Your task to perform on an android device: show emergency info Image 0: 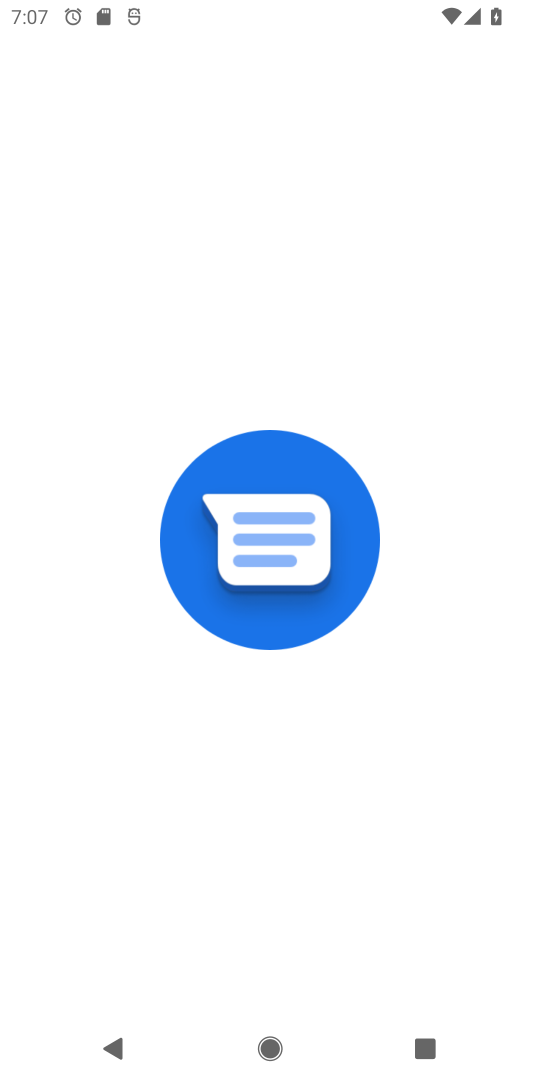
Step 0: press home button
Your task to perform on an android device: show emergency info Image 1: 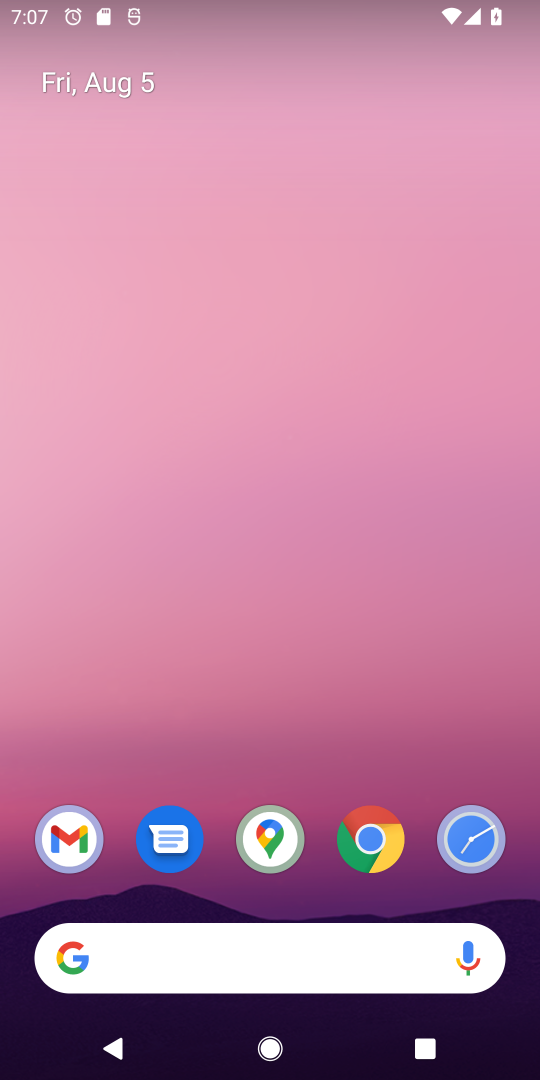
Step 1: drag from (224, 772) to (208, 165)
Your task to perform on an android device: show emergency info Image 2: 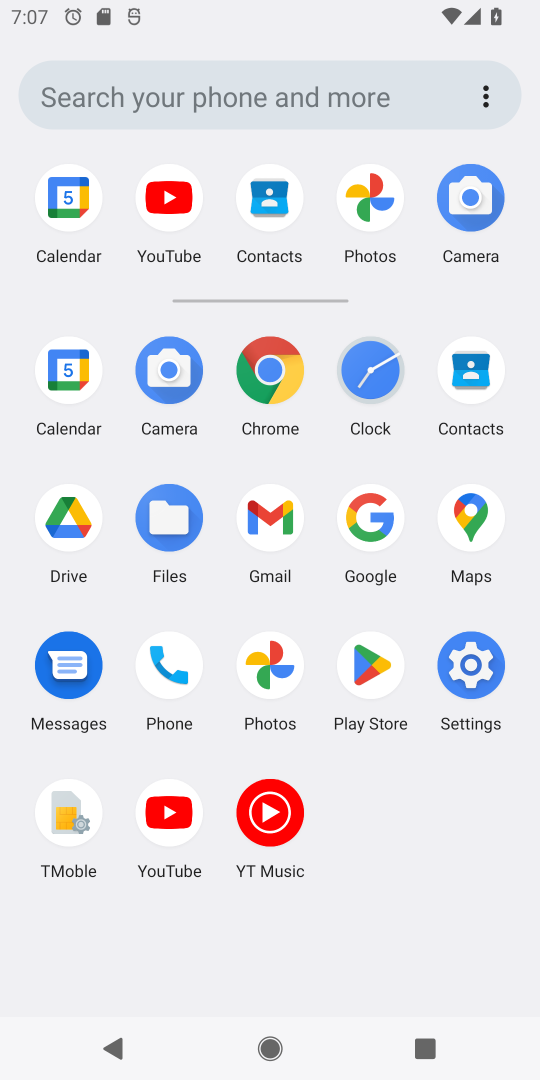
Step 2: click (467, 664)
Your task to perform on an android device: show emergency info Image 3: 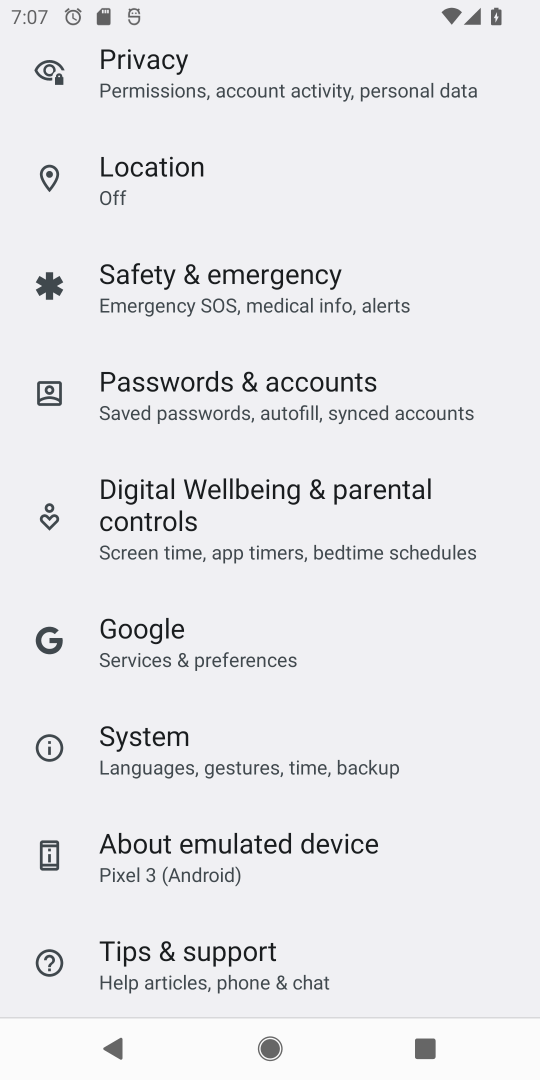
Step 3: drag from (261, 832) to (268, 270)
Your task to perform on an android device: show emergency info Image 4: 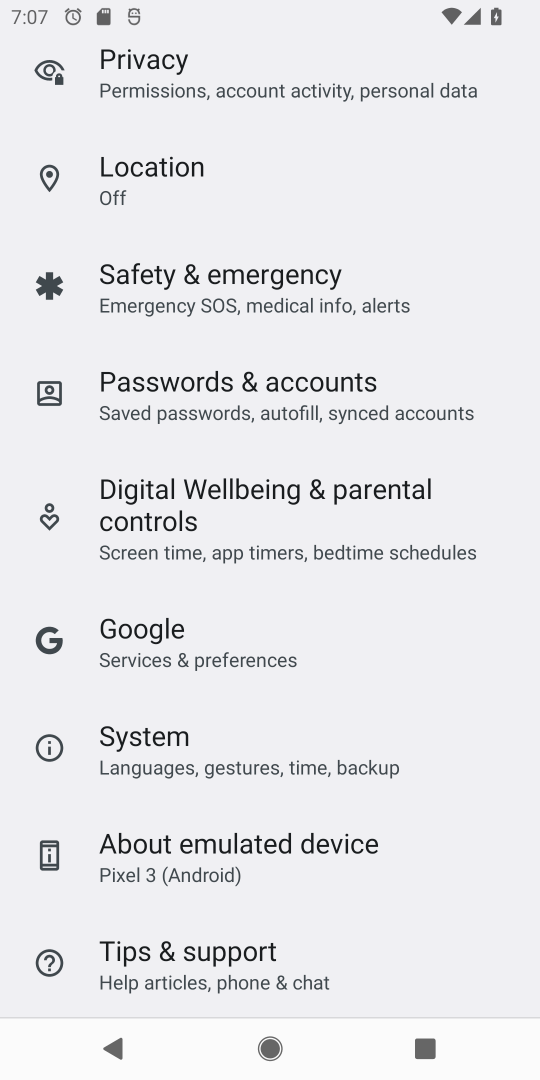
Step 4: click (196, 839)
Your task to perform on an android device: show emergency info Image 5: 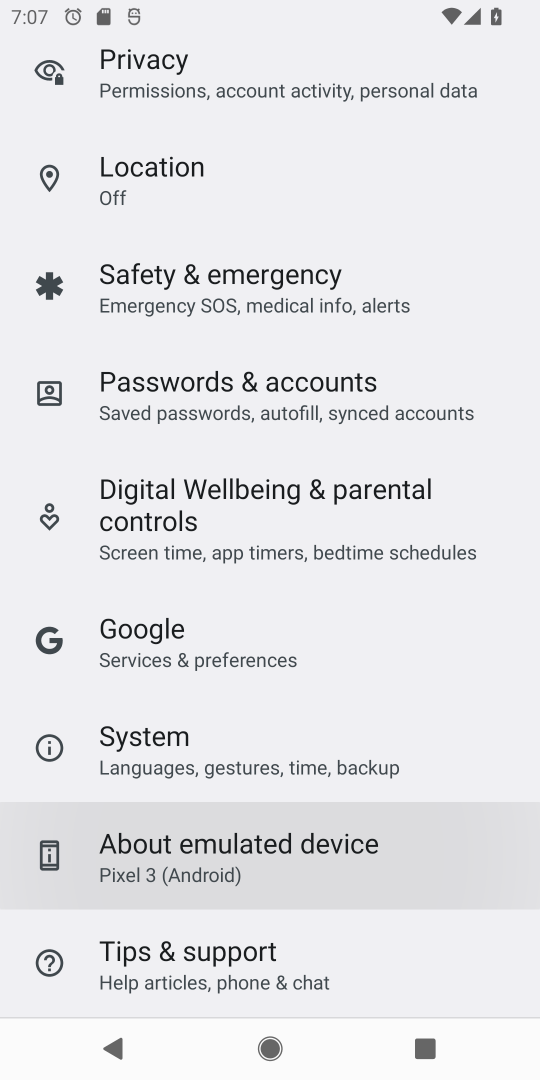
Step 5: click (238, 871)
Your task to perform on an android device: show emergency info Image 6: 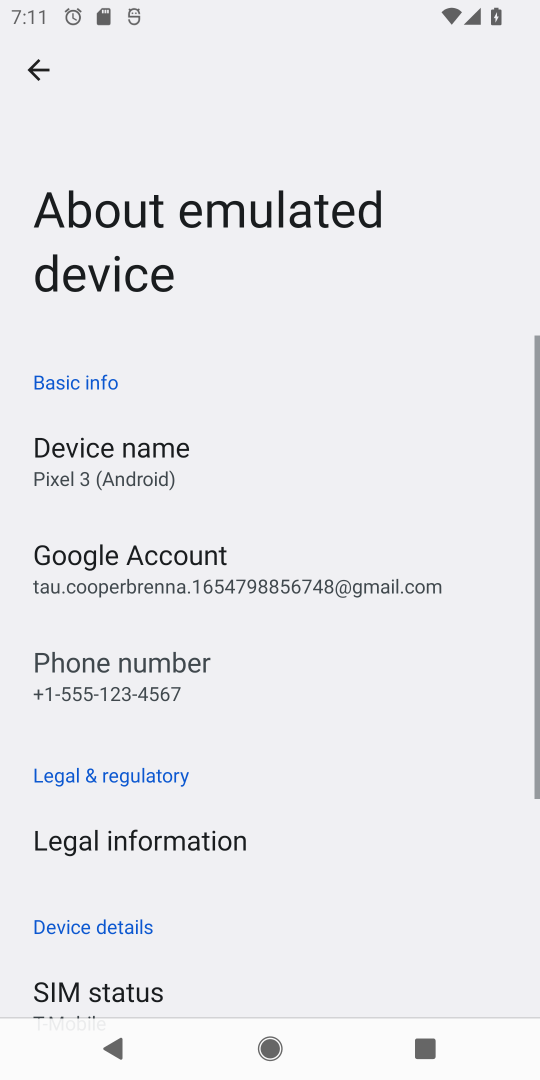
Step 6: task complete